Your task to perform on an android device: open app "WhatsApp Messenger" (install if not already installed), go to login, and select forgot password Image 0: 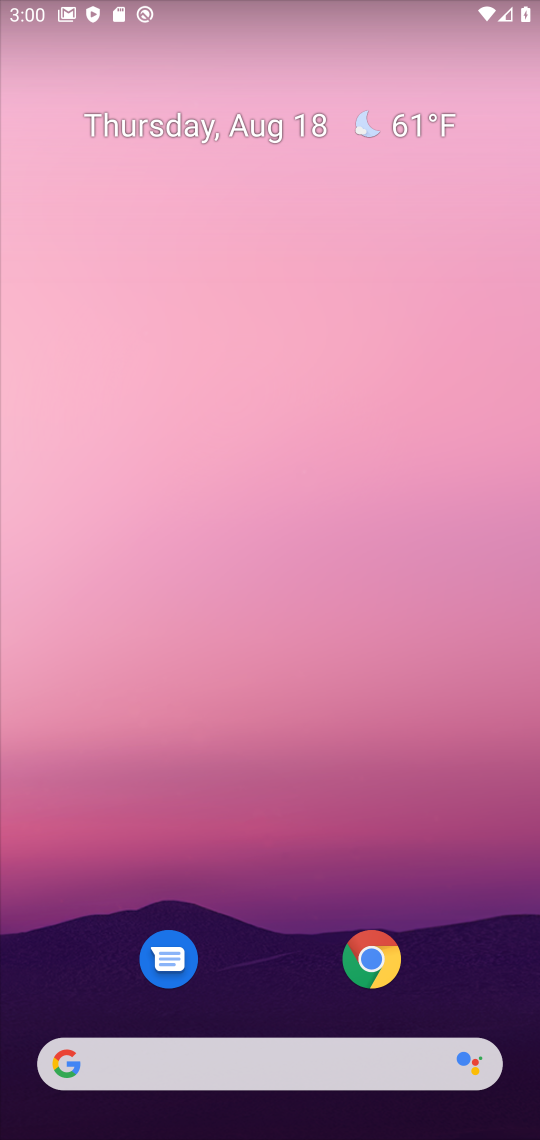
Step 0: drag from (261, 943) to (243, 14)
Your task to perform on an android device: open app "WhatsApp Messenger" (install if not already installed), go to login, and select forgot password Image 1: 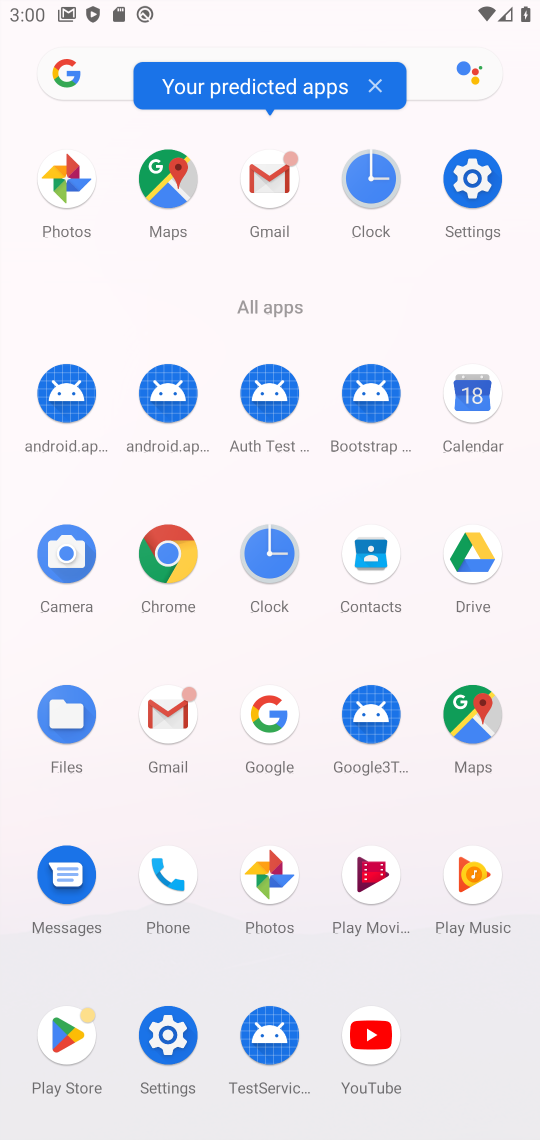
Step 1: click (58, 1056)
Your task to perform on an android device: open app "WhatsApp Messenger" (install if not already installed), go to login, and select forgot password Image 2: 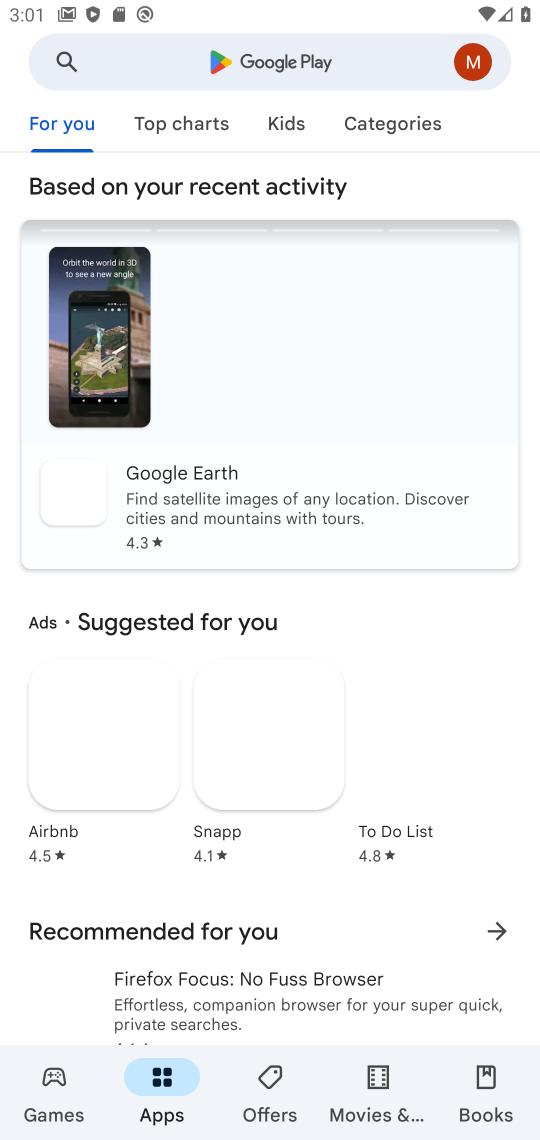
Step 2: click (269, 76)
Your task to perform on an android device: open app "WhatsApp Messenger" (install if not already installed), go to login, and select forgot password Image 3: 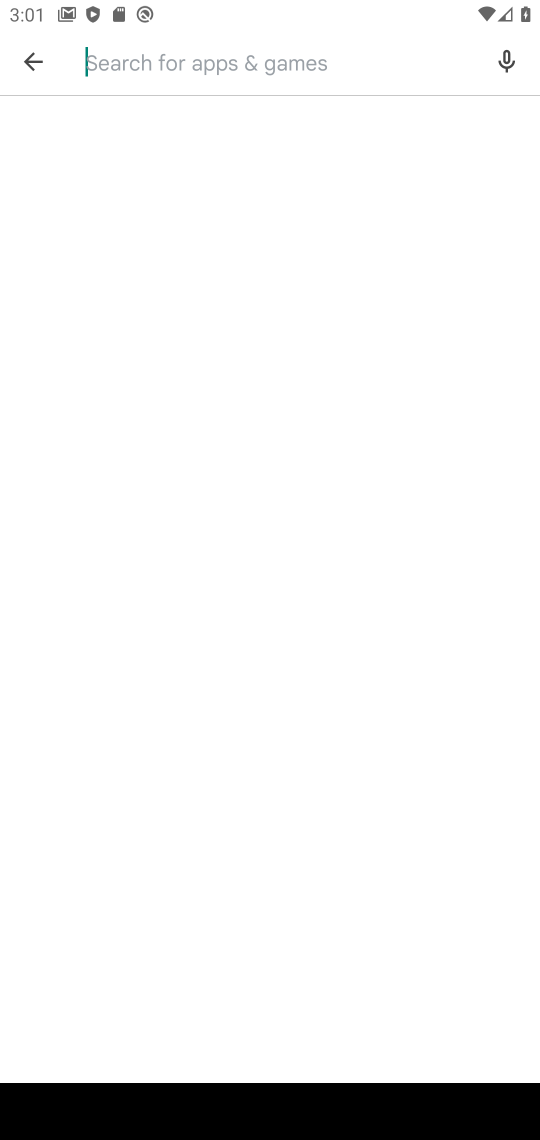
Step 3: type "WhatsApp Messenger"
Your task to perform on an android device: open app "WhatsApp Messenger" (install if not already installed), go to login, and select forgot password Image 4: 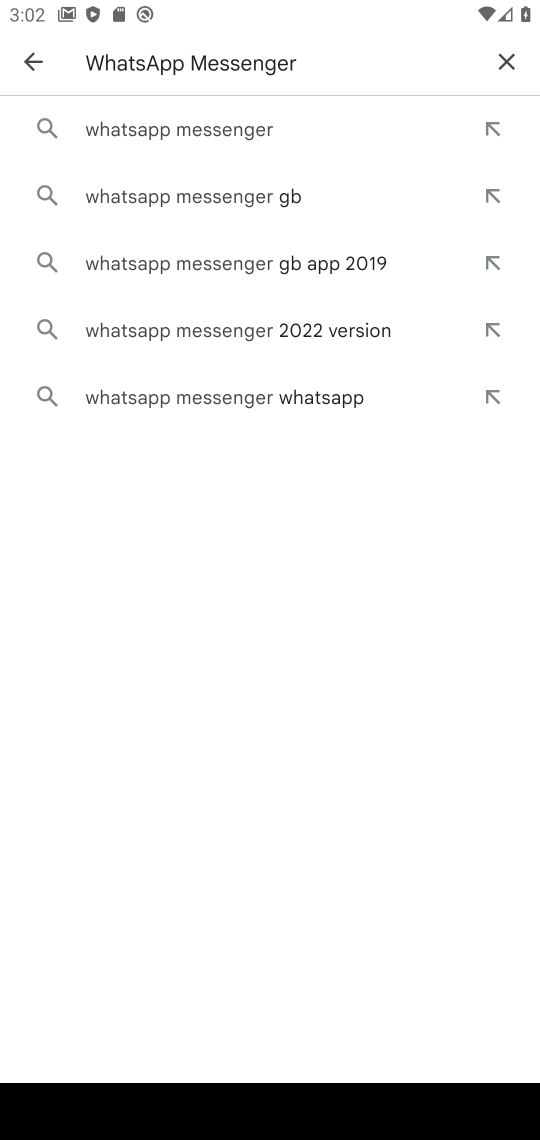
Step 4: click (274, 130)
Your task to perform on an android device: open app "WhatsApp Messenger" (install if not already installed), go to login, and select forgot password Image 5: 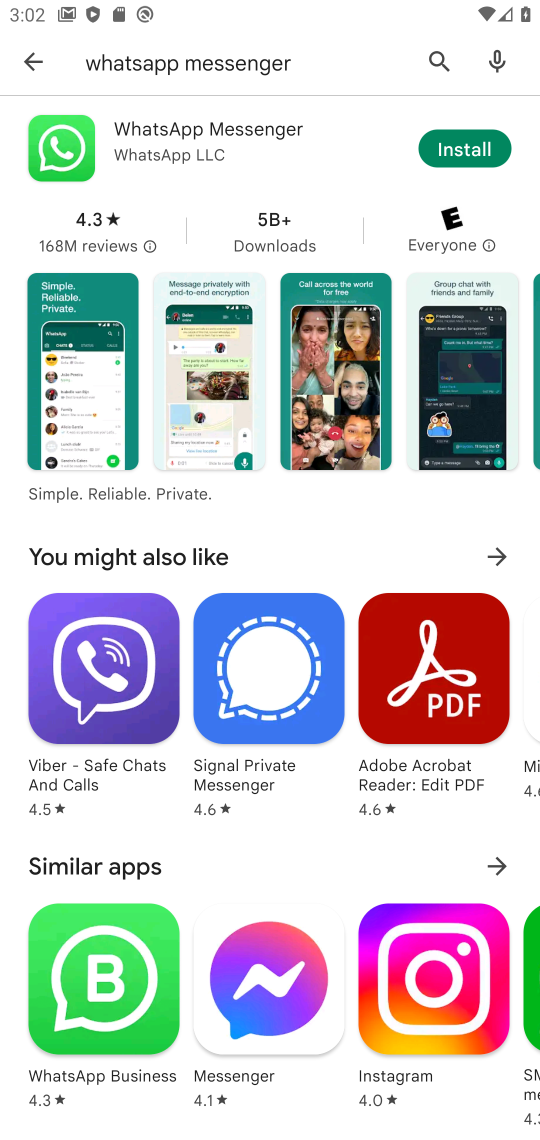
Step 5: click (466, 146)
Your task to perform on an android device: open app "WhatsApp Messenger" (install if not already installed), go to login, and select forgot password Image 6: 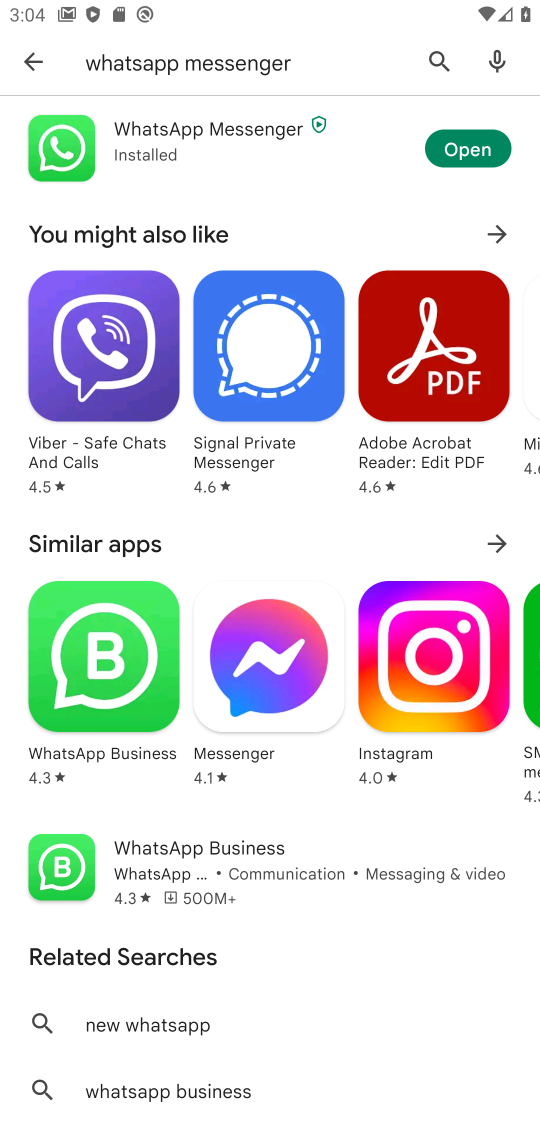
Step 6: click (452, 155)
Your task to perform on an android device: open app "WhatsApp Messenger" (install if not already installed), go to login, and select forgot password Image 7: 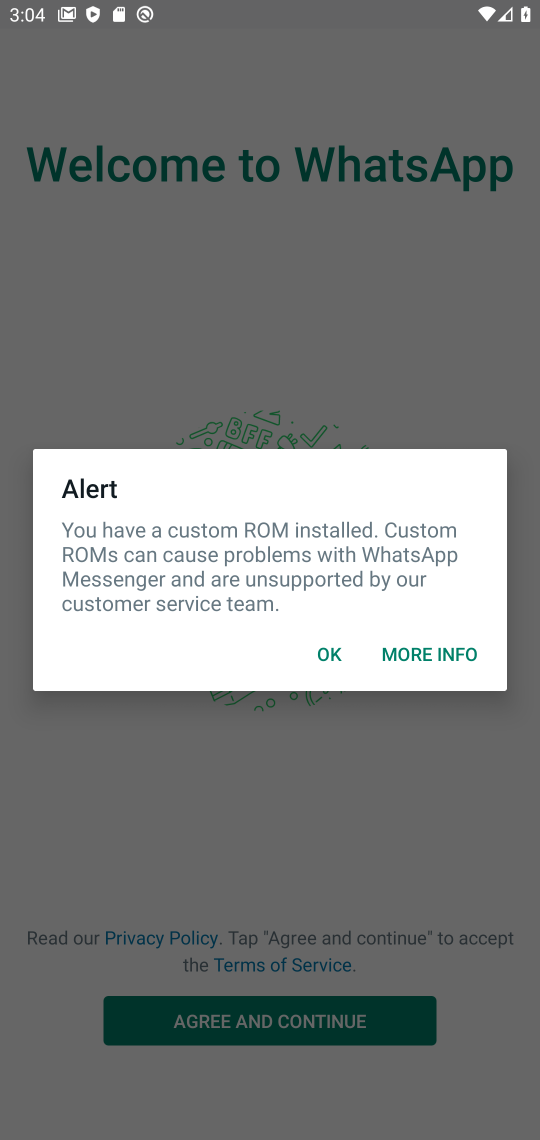
Step 7: task complete